Your task to perform on an android device: Go to Maps Image 0: 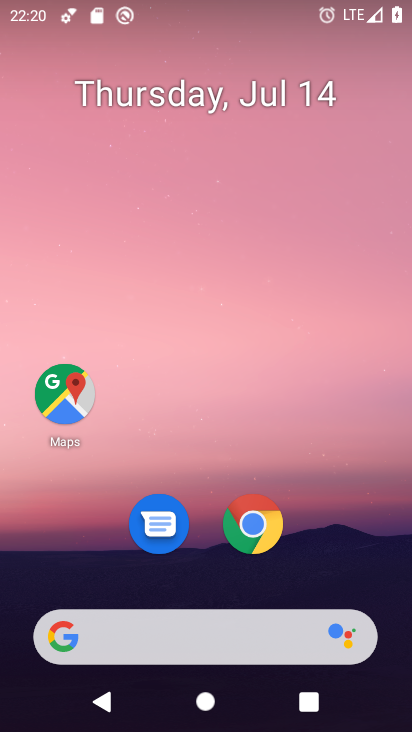
Step 0: click (56, 400)
Your task to perform on an android device: Go to Maps Image 1: 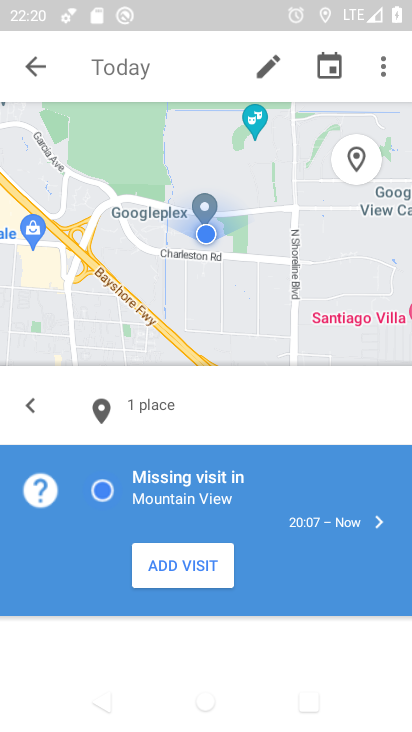
Step 1: click (35, 65)
Your task to perform on an android device: Go to Maps Image 2: 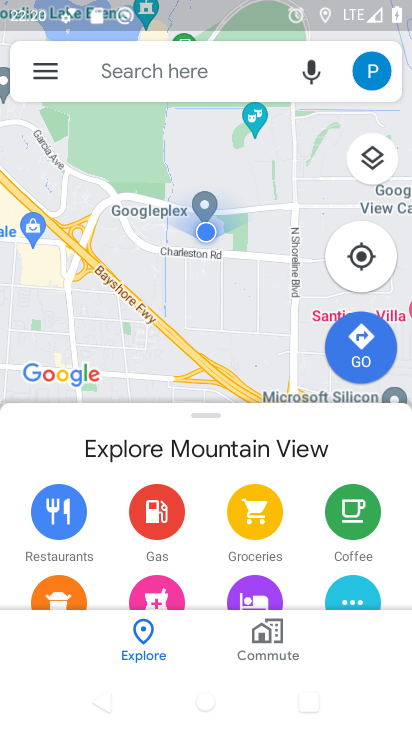
Step 2: press home button
Your task to perform on an android device: Go to Maps Image 3: 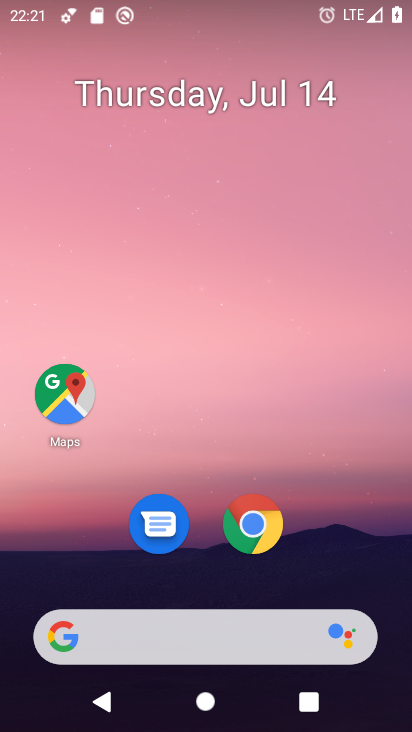
Step 3: drag from (223, 453) to (234, 25)
Your task to perform on an android device: Go to Maps Image 4: 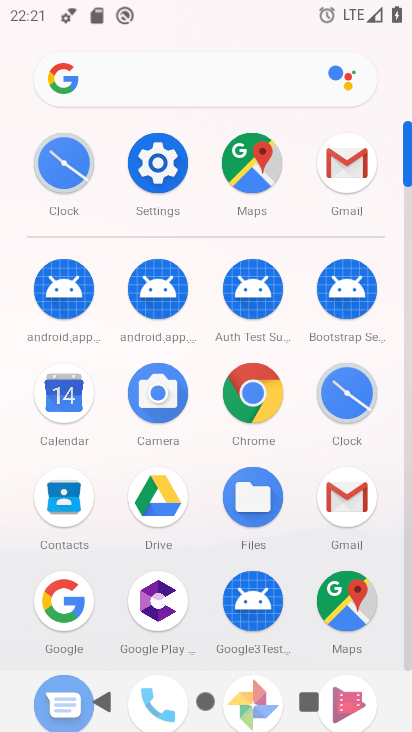
Step 4: click (260, 174)
Your task to perform on an android device: Go to Maps Image 5: 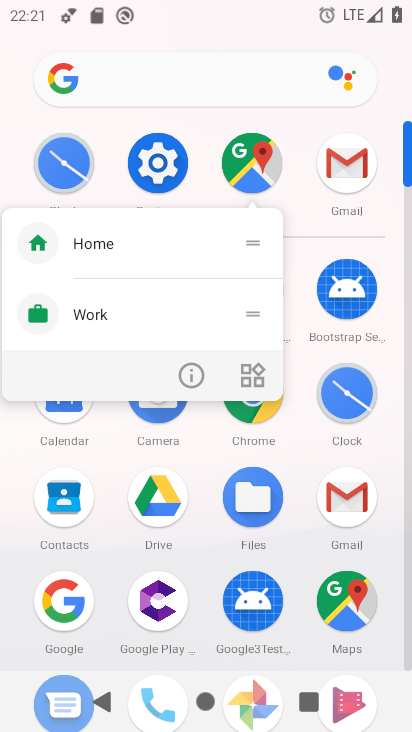
Step 5: click (260, 170)
Your task to perform on an android device: Go to Maps Image 6: 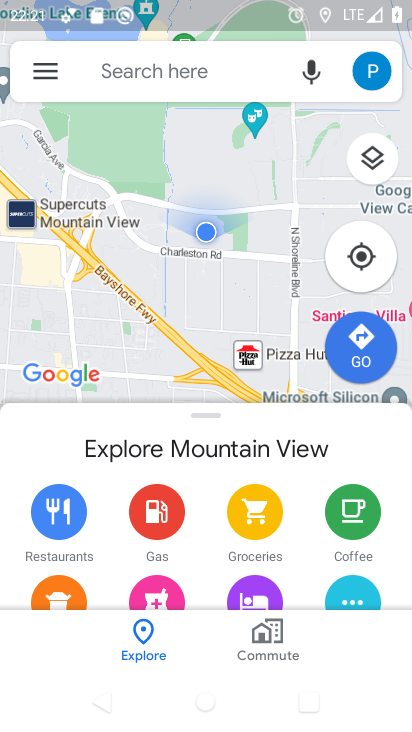
Step 6: task complete